Your task to perform on an android device: Show me popular games on the Play Store Image 0: 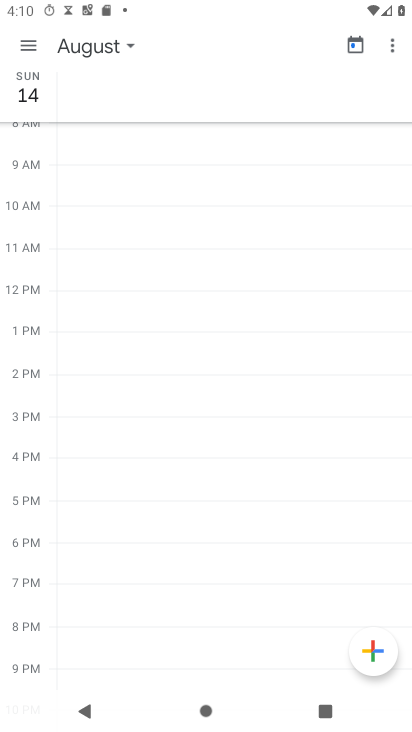
Step 0: press home button
Your task to perform on an android device: Show me popular games on the Play Store Image 1: 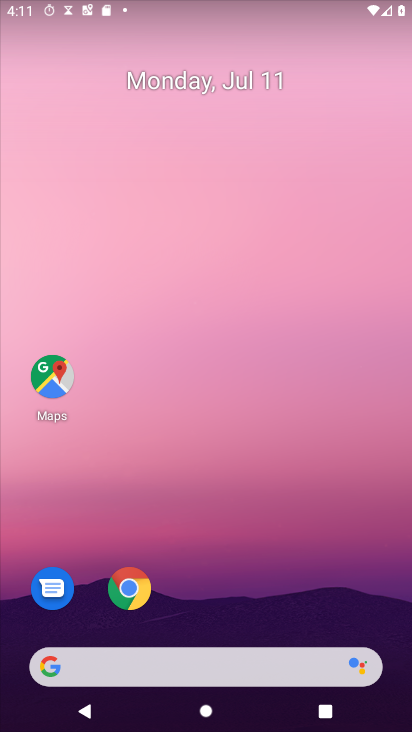
Step 1: drag from (235, 557) to (254, 302)
Your task to perform on an android device: Show me popular games on the Play Store Image 2: 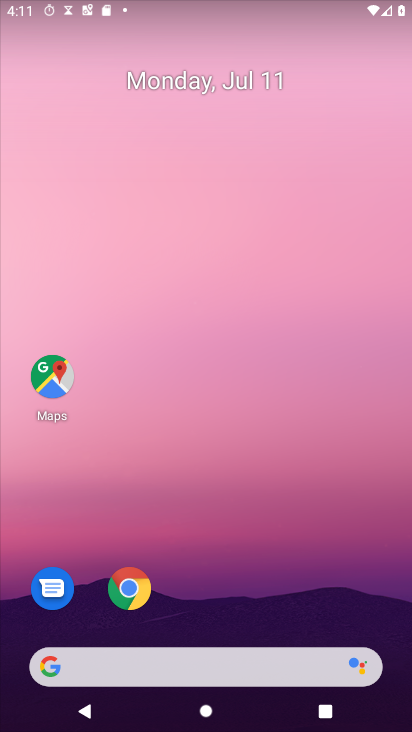
Step 2: drag from (258, 568) to (246, 127)
Your task to perform on an android device: Show me popular games on the Play Store Image 3: 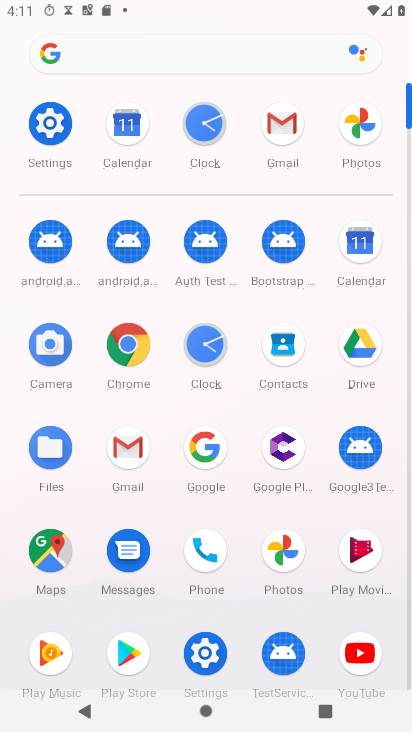
Step 3: click (137, 664)
Your task to perform on an android device: Show me popular games on the Play Store Image 4: 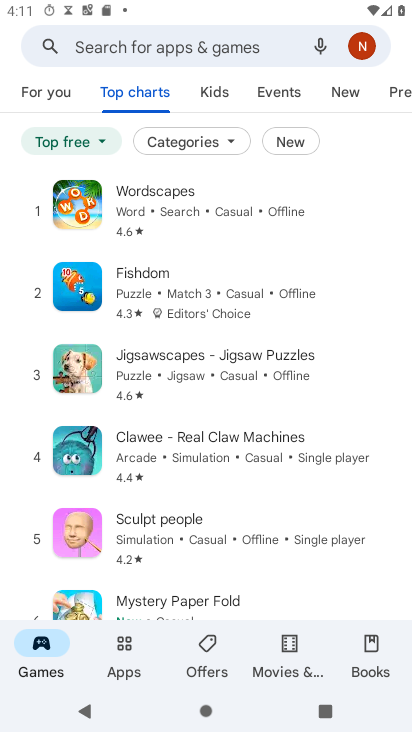
Step 4: task complete